Your task to perform on an android device: see sites visited before in the chrome app Image 0: 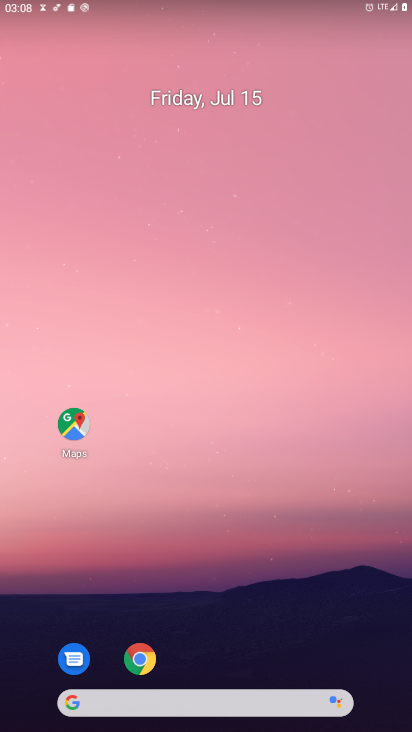
Step 0: drag from (178, 645) to (257, 283)
Your task to perform on an android device: see sites visited before in the chrome app Image 1: 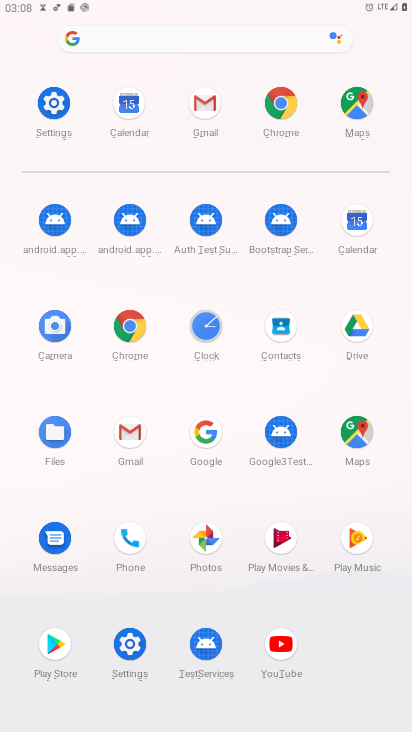
Step 1: click (273, 96)
Your task to perform on an android device: see sites visited before in the chrome app Image 2: 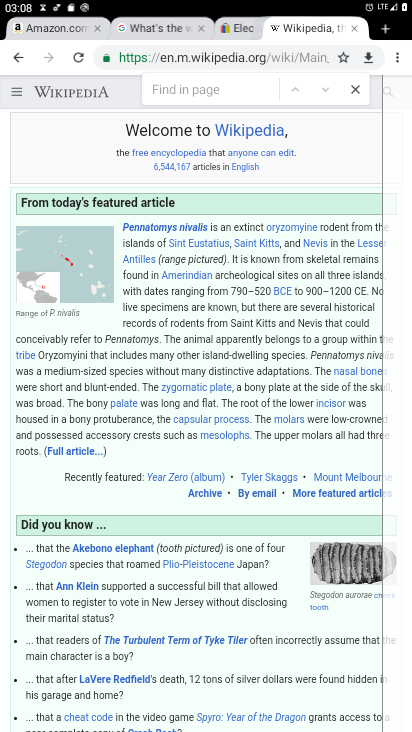
Step 2: click (402, 50)
Your task to perform on an android device: see sites visited before in the chrome app Image 3: 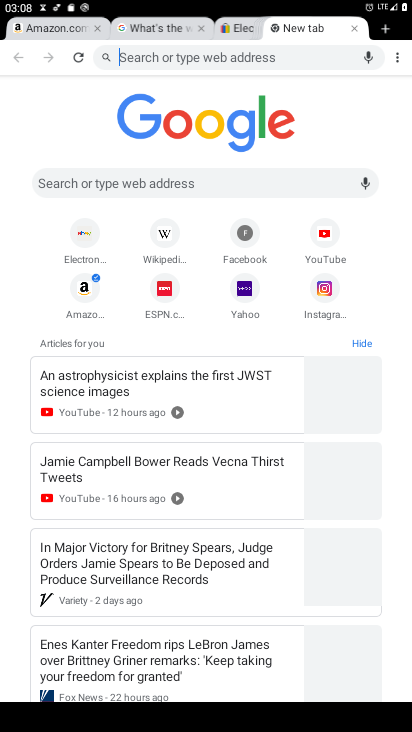
Step 3: click (401, 58)
Your task to perform on an android device: see sites visited before in the chrome app Image 4: 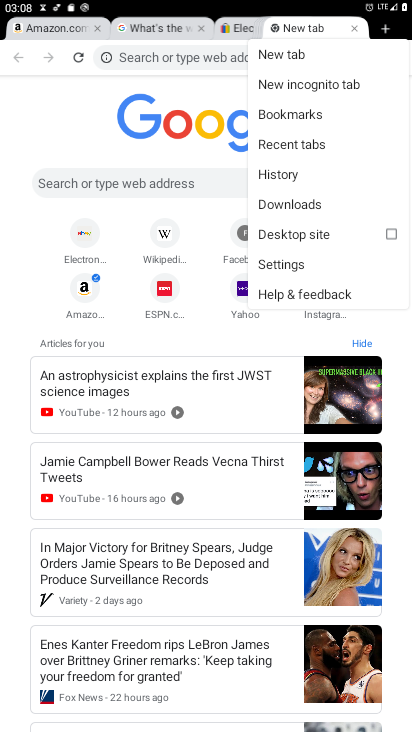
Step 4: click (293, 171)
Your task to perform on an android device: see sites visited before in the chrome app Image 5: 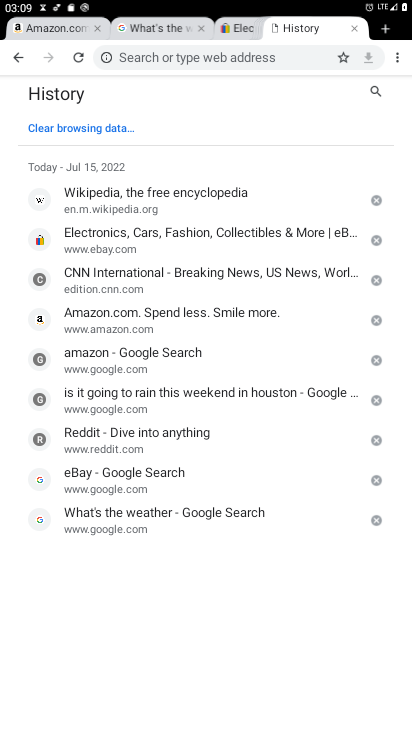
Step 5: task complete